Your task to perform on an android device: toggle javascript in the chrome app Image 0: 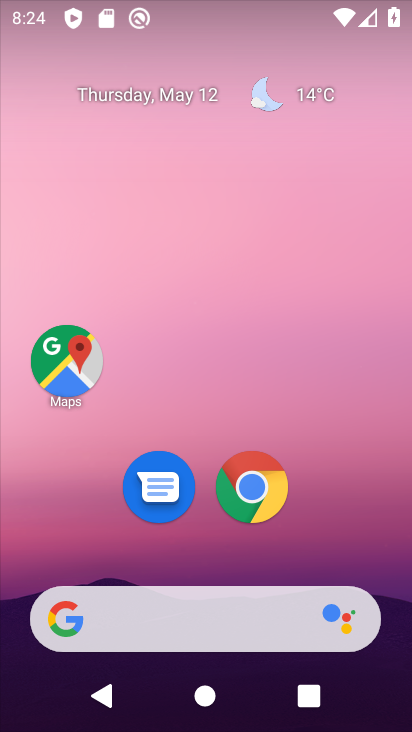
Step 0: click (261, 480)
Your task to perform on an android device: toggle javascript in the chrome app Image 1: 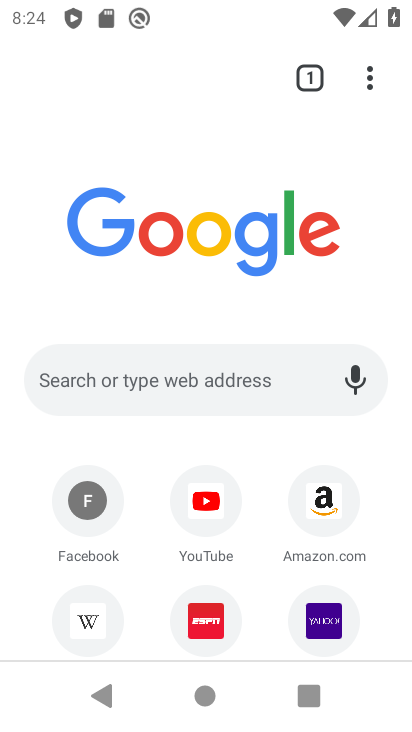
Step 1: click (367, 80)
Your task to perform on an android device: toggle javascript in the chrome app Image 2: 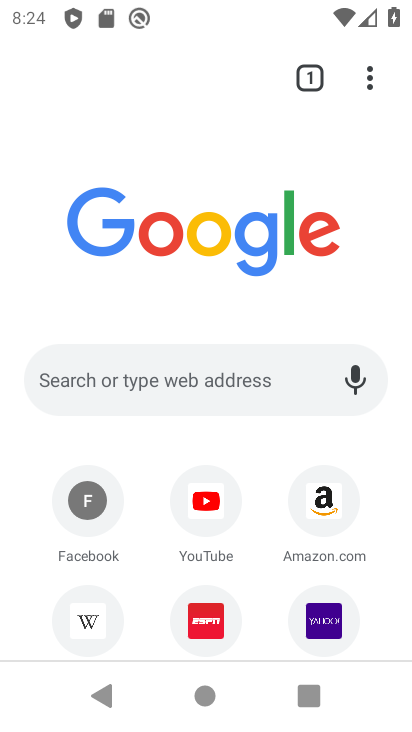
Step 2: click (365, 72)
Your task to perform on an android device: toggle javascript in the chrome app Image 3: 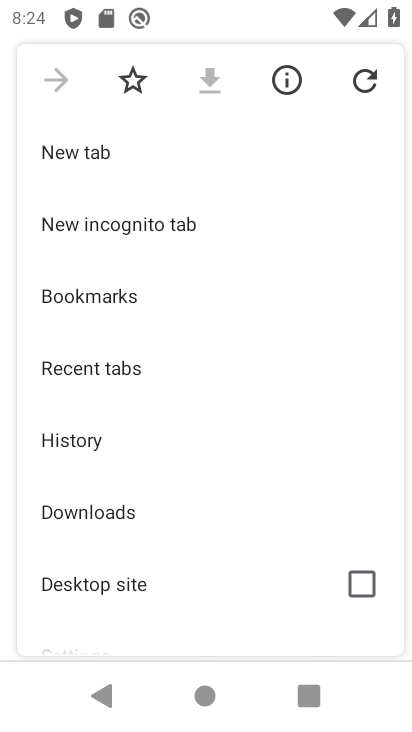
Step 3: drag from (89, 614) to (247, 128)
Your task to perform on an android device: toggle javascript in the chrome app Image 4: 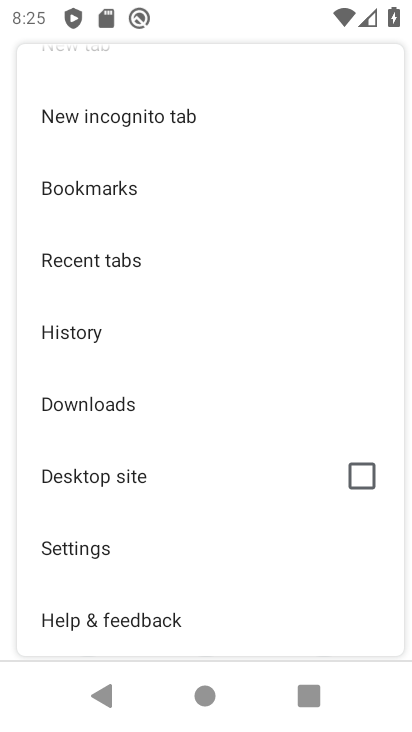
Step 4: click (120, 550)
Your task to perform on an android device: toggle javascript in the chrome app Image 5: 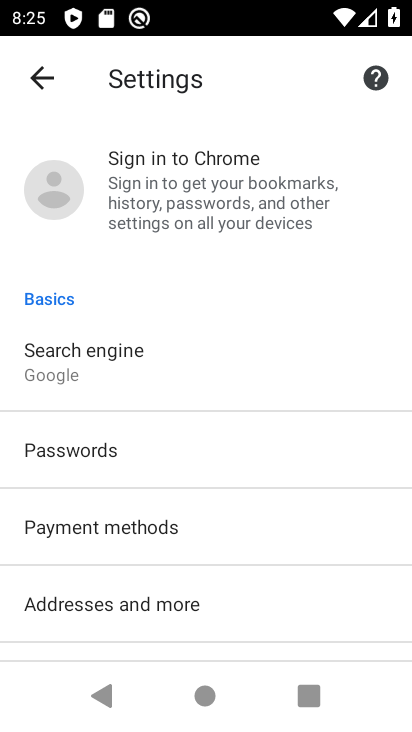
Step 5: drag from (0, 562) to (261, 158)
Your task to perform on an android device: toggle javascript in the chrome app Image 6: 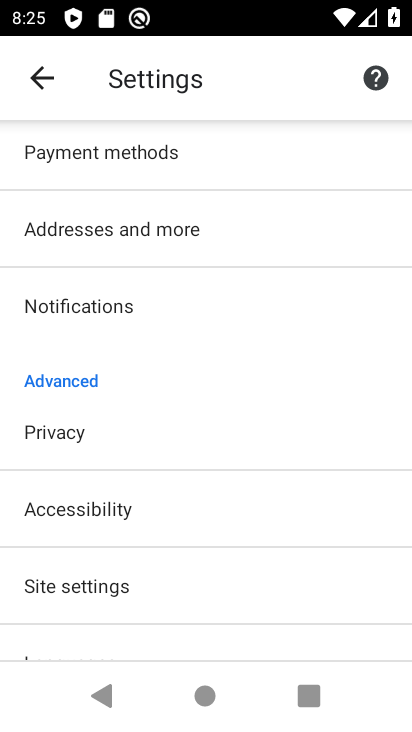
Step 6: click (111, 586)
Your task to perform on an android device: toggle javascript in the chrome app Image 7: 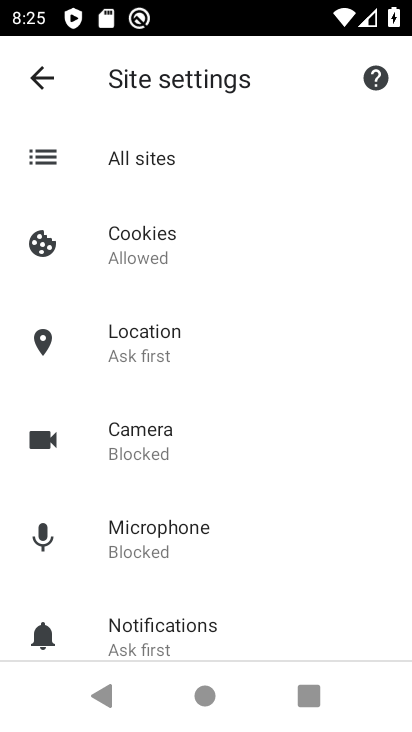
Step 7: drag from (25, 563) to (227, 140)
Your task to perform on an android device: toggle javascript in the chrome app Image 8: 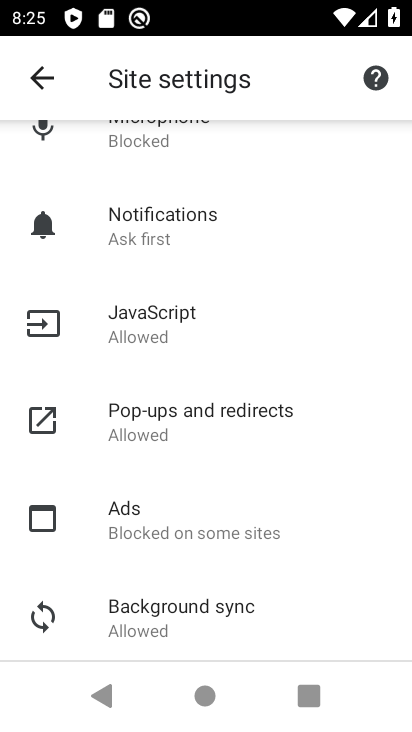
Step 8: click (152, 333)
Your task to perform on an android device: toggle javascript in the chrome app Image 9: 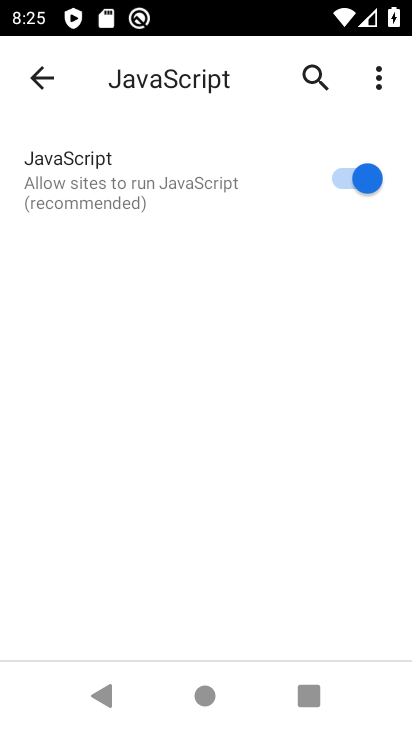
Step 9: click (376, 181)
Your task to perform on an android device: toggle javascript in the chrome app Image 10: 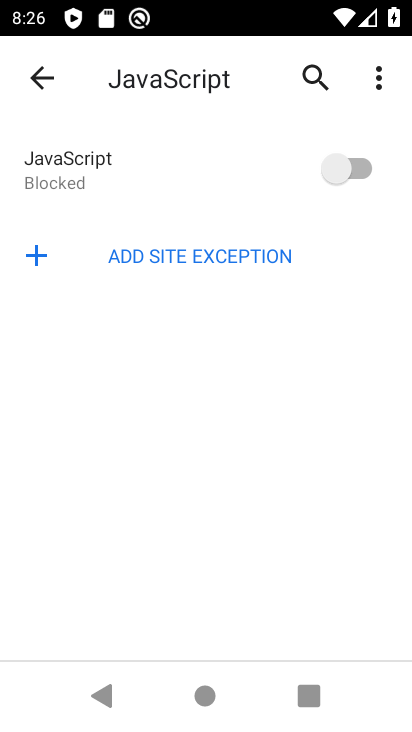
Step 10: task complete